Your task to perform on an android device: Go to ESPN.com Image 0: 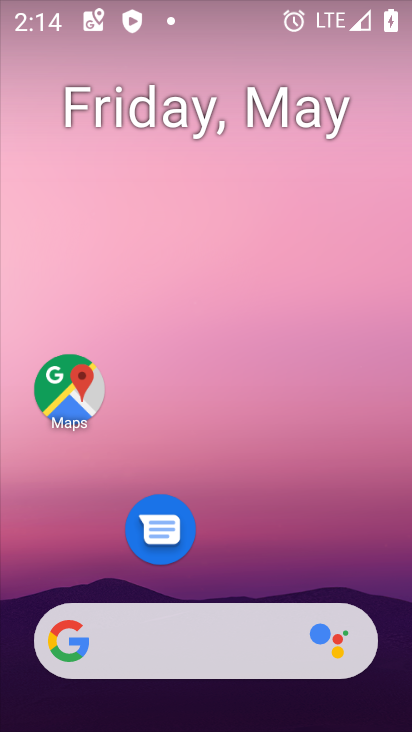
Step 0: click (226, 243)
Your task to perform on an android device: Go to ESPN.com Image 1: 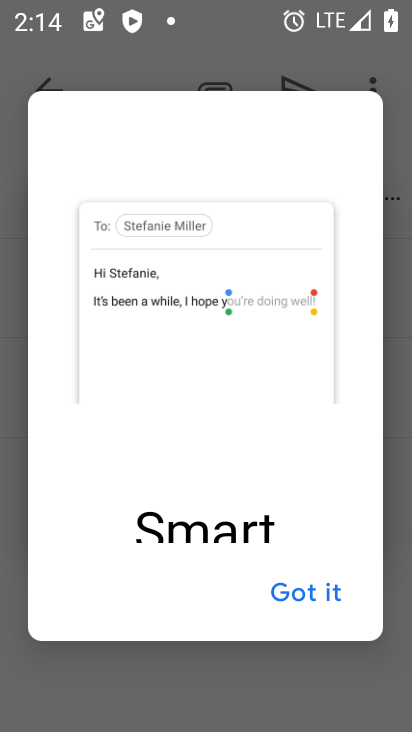
Step 1: press home button
Your task to perform on an android device: Go to ESPN.com Image 2: 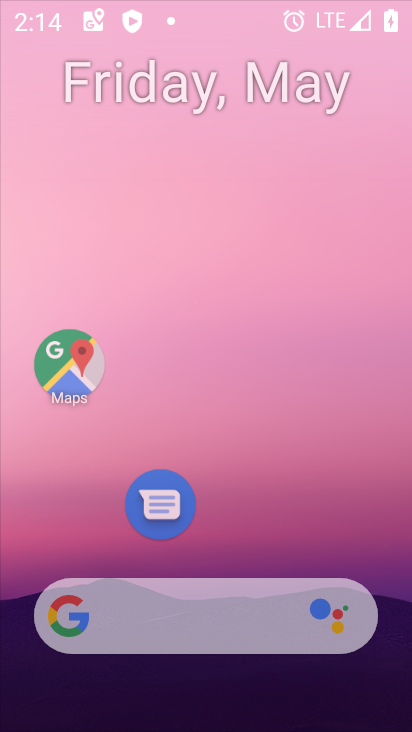
Step 2: drag from (218, 580) to (282, 156)
Your task to perform on an android device: Go to ESPN.com Image 3: 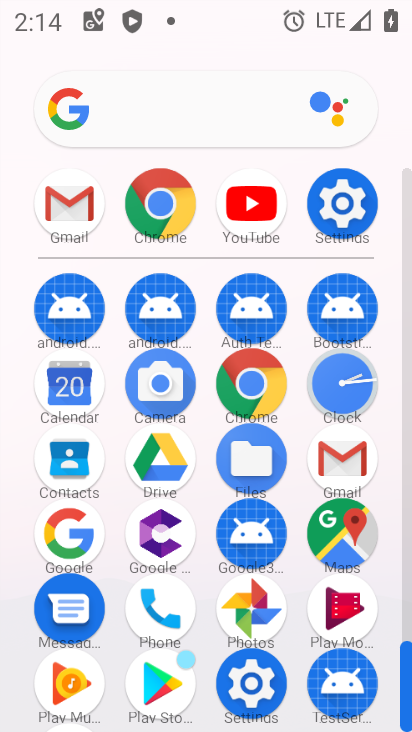
Step 3: click (197, 132)
Your task to perform on an android device: Go to ESPN.com Image 4: 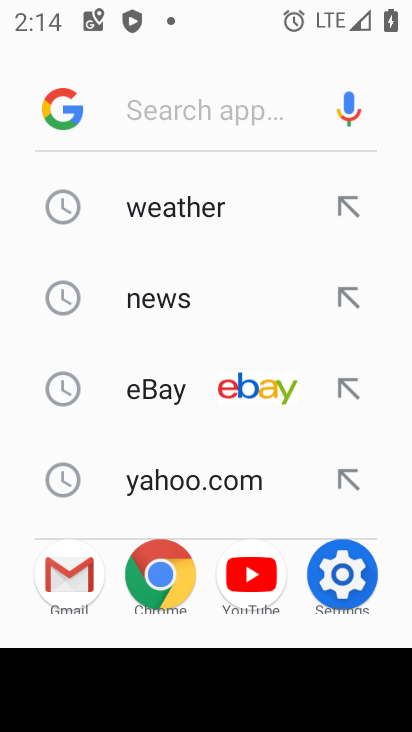
Step 4: type "espn"
Your task to perform on an android device: Go to ESPN.com Image 5: 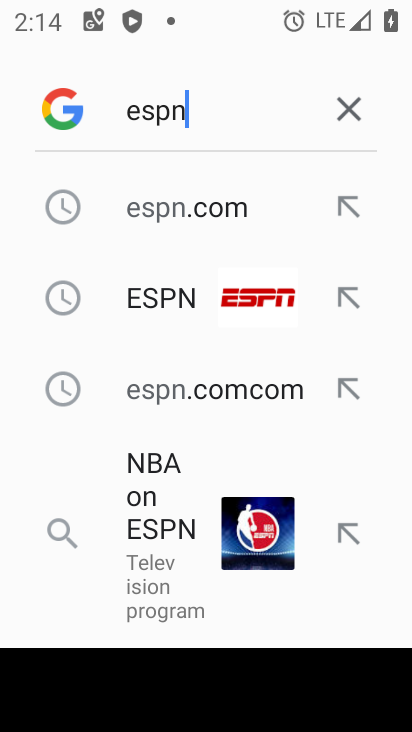
Step 5: click (149, 232)
Your task to perform on an android device: Go to ESPN.com Image 6: 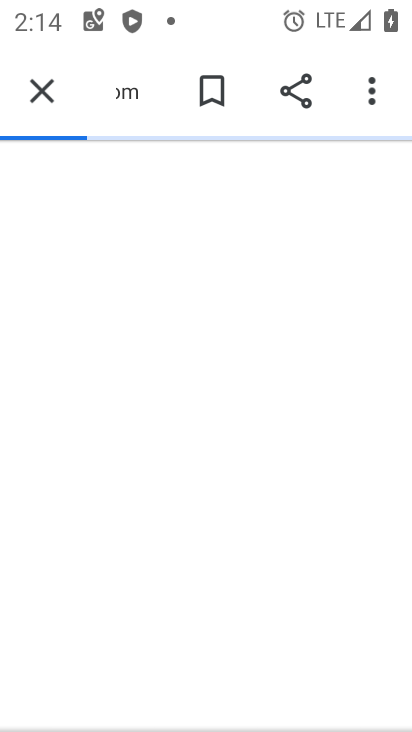
Step 6: task complete